Your task to perform on an android device: delete the emails in spam in the gmail app Image 0: 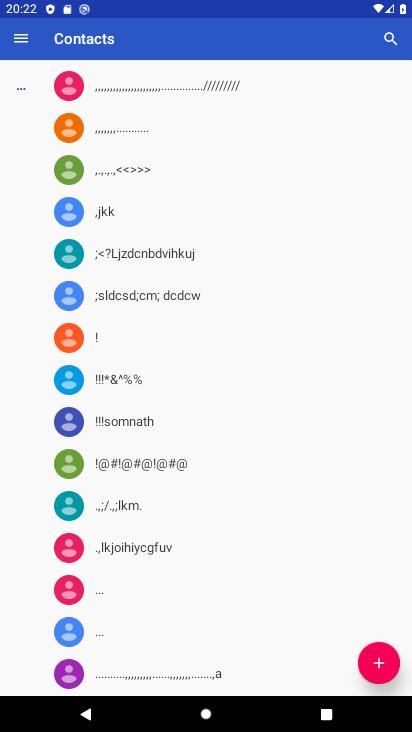
Step 0: press home button
Your task to perform on an android device: delete the emails in spam in the gmail app Image 1: 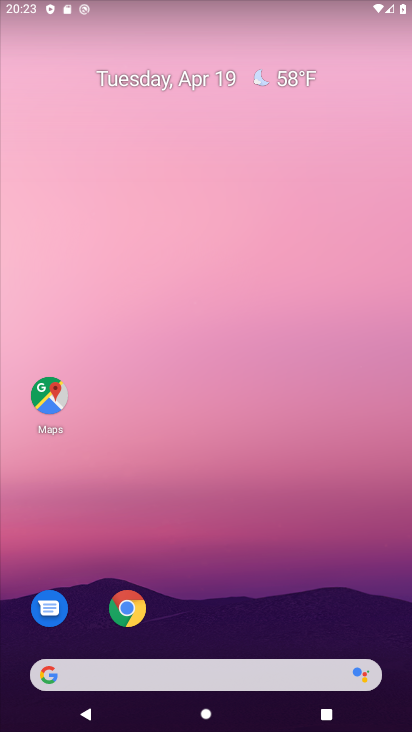
Step 1: drag from (195, 624) to (307, 76)
Your task to perform on an android device: delete the emails in spam in the gmail app Image 2: 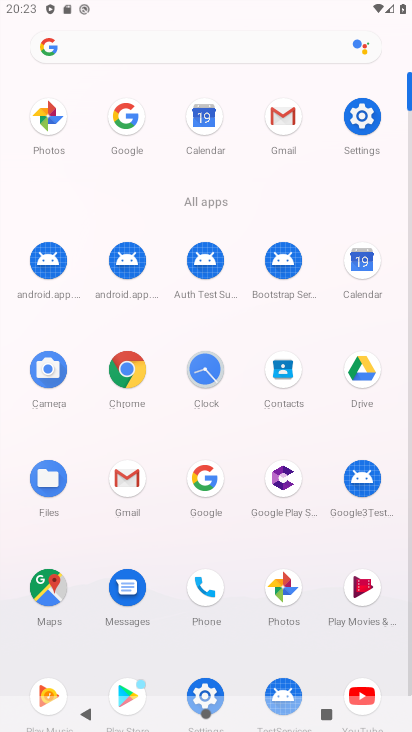
Step 2: click (285, 115)
Your task to perform on an android device: delete the emails in spam in the gmail app Image 3: 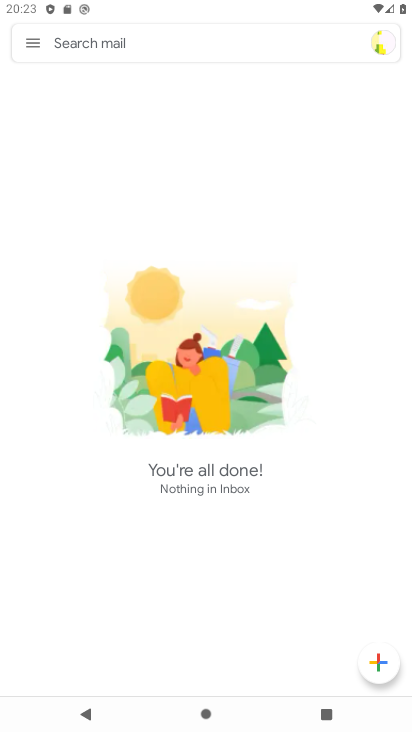
Step 3: click (36, 42)
Your task to perform on an android device: delete the emails in spam in the gmail app Image 4: 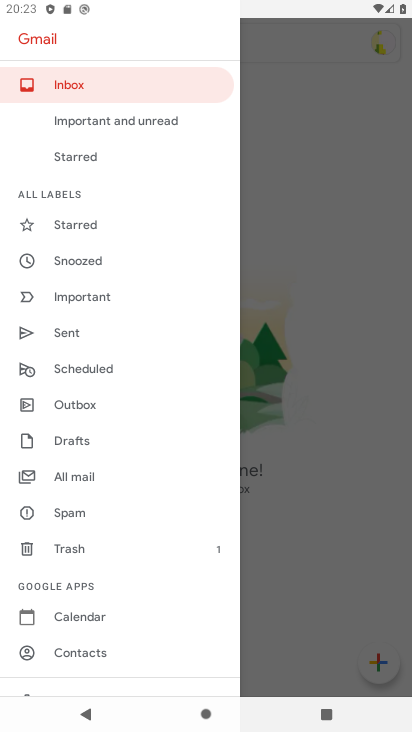
Step 4: click (74, 513)
Your task to perform on an android device: delete the emails in spam in the gmail app Image 5: 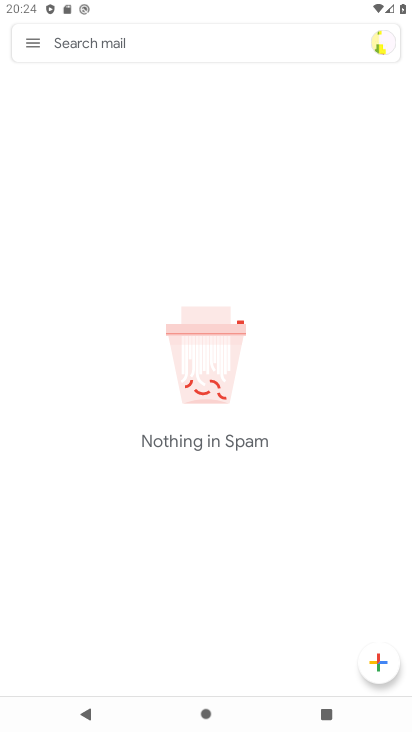
Step 5: task complete